Your task to perform on an android device: turn on sleep mode Image 0: 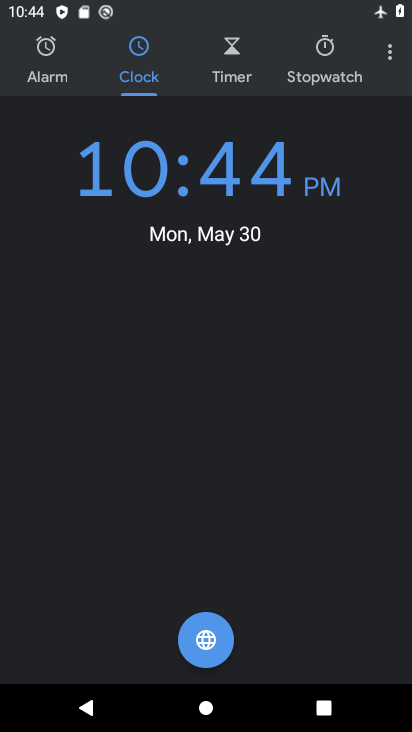
Step 0: press home button
Your task to perform on an android device: turn on sleep mode Image 1: 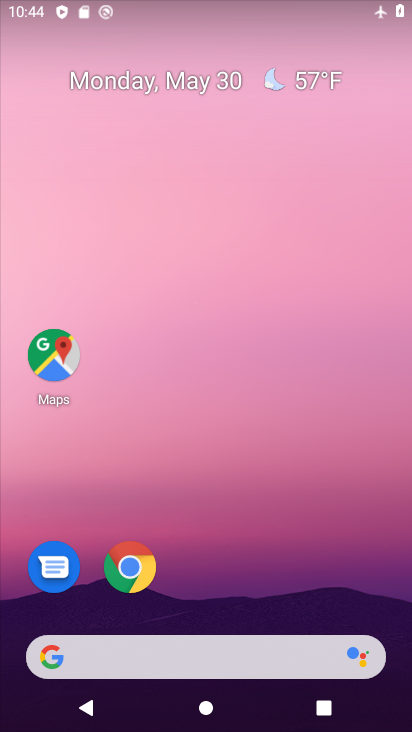
Step 1: drag from (217, 581) to (198, 174)
Your task to perform on an android device: turn on sleep mode Image 2: 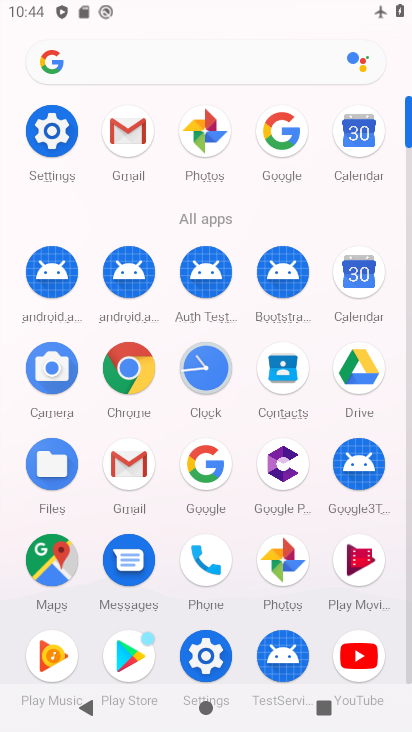
Step 2: click (59, 154)
Your task to perform on an android device: turn on sleep mode Image 3: 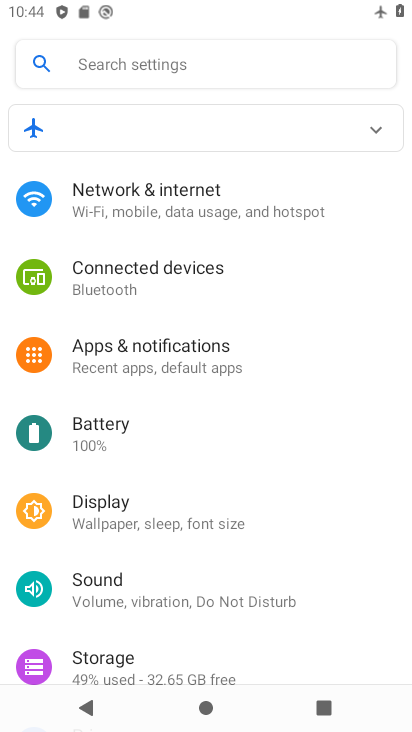
Step 3: drag from (189, 495) to (200, 325)
Your task to perform on an android device: turn on sleep mode Image 4: 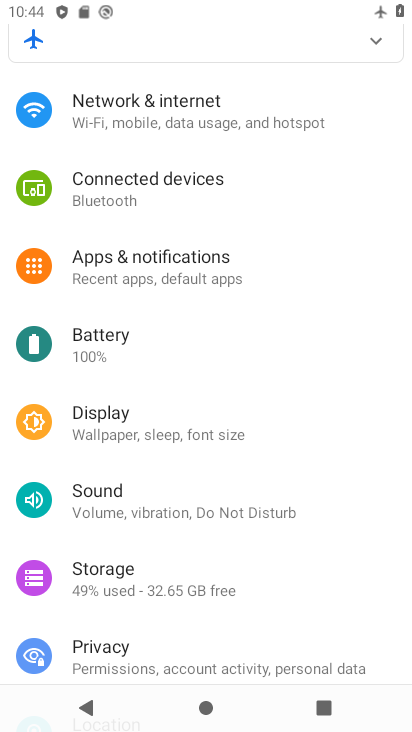
Step 4: click (149, 411)
Your task to perform on an android device: turn on sleep mode Image 5: 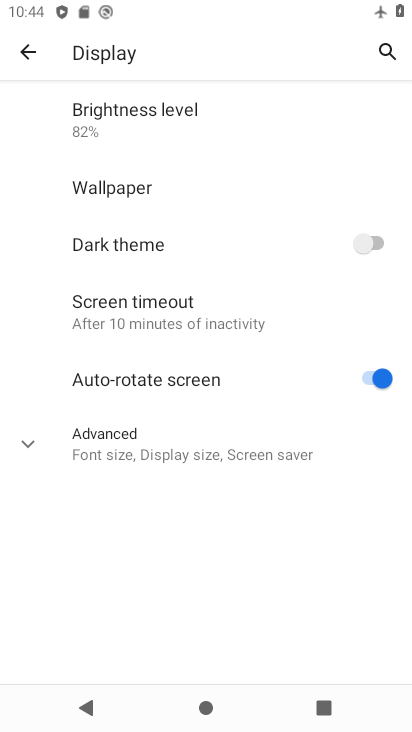
Step 5: click (183, 332)
Your task to perform on an android device: turn on sleep mode Image 6: 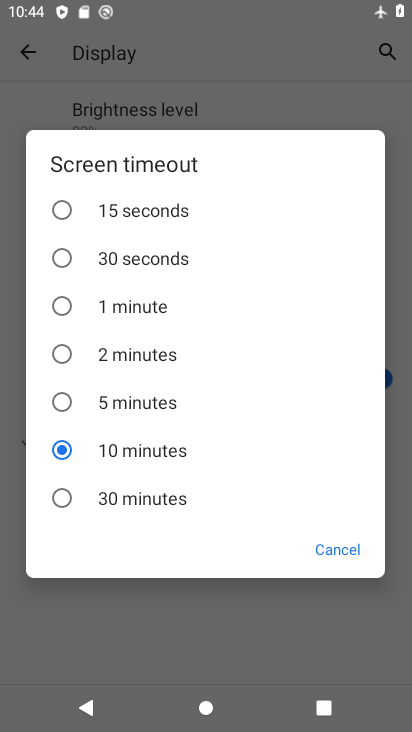
Step 6: click (126, 275)
Your task to perform on an android device: turn on sleep mode Image 7: 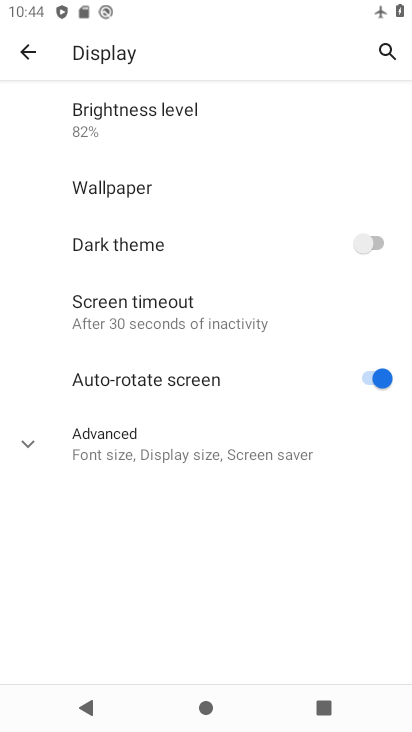
Step 7: task complete